Your task to perform on an android device: empty trash in google photos Image 0: 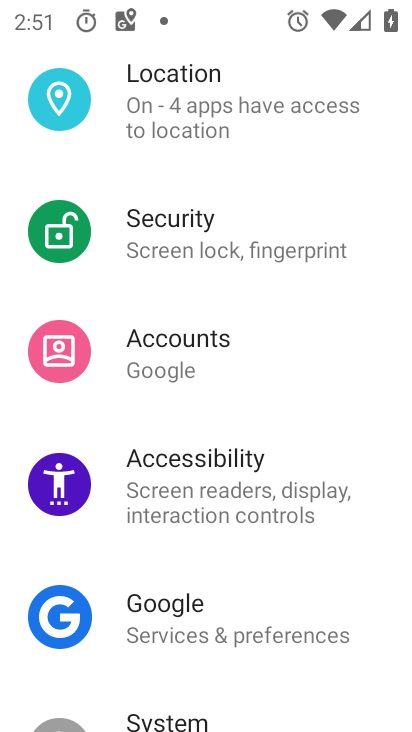
Step 0: press home button
Your task to perform on an android device: empty trash in google photos Image 1: 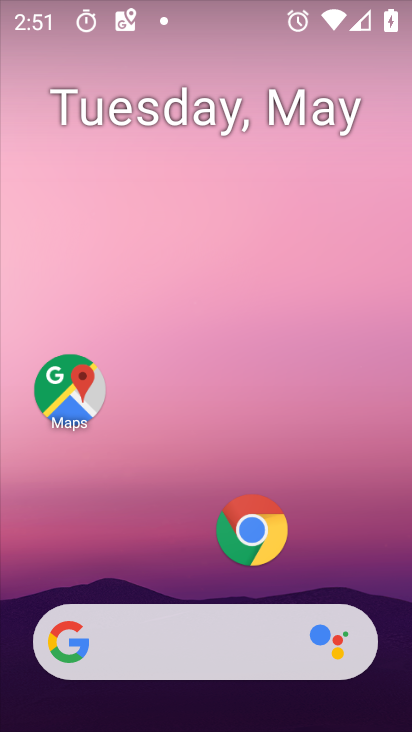
Step 1: drag from (171, 581) to (203, 32)
Your task to perform on an android device: empty trash in google photos Image 2: 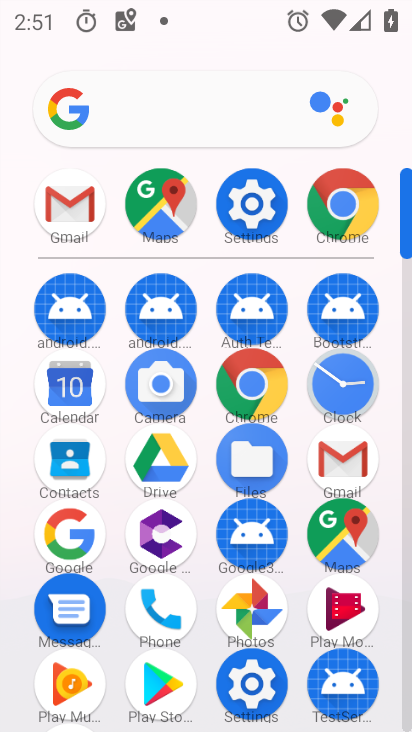
Step 2: click (273, 611)
Your task to perform on an android device: empty trash in google photos Image 3: 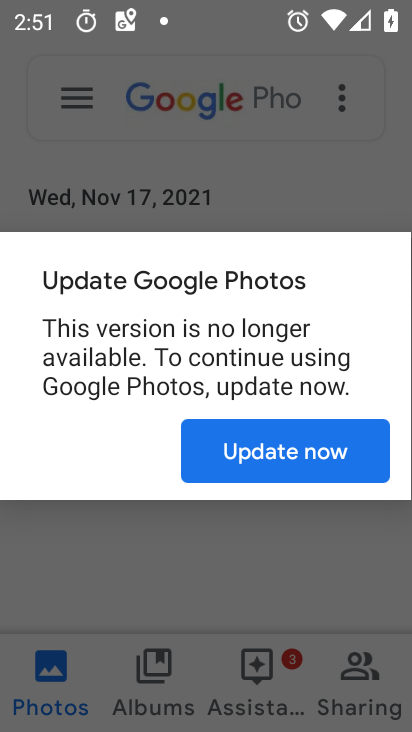
Step 3: click (256, 455)
Your task to perform on an android device: empty trash in google photos Image 4: 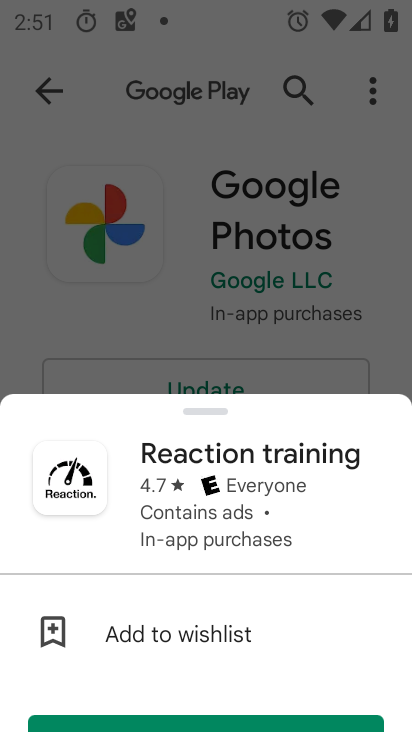
Step 4: press back button
Your task to perform on an android device: empty trash in google photos Image 5: 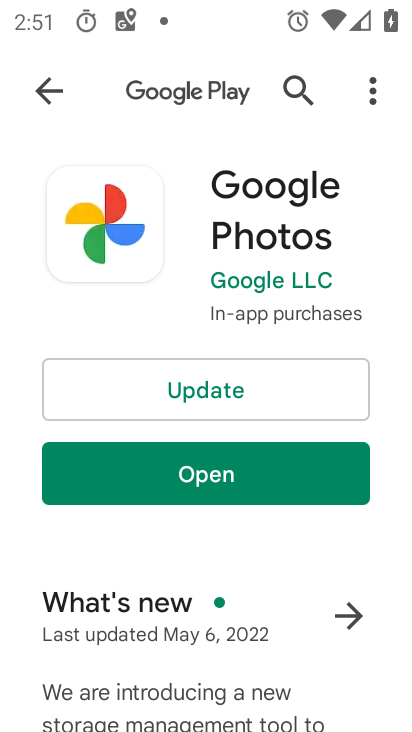
Step 5: click (250, 469)
Your task to perform on an android device: empty trash in google photos Image 6: 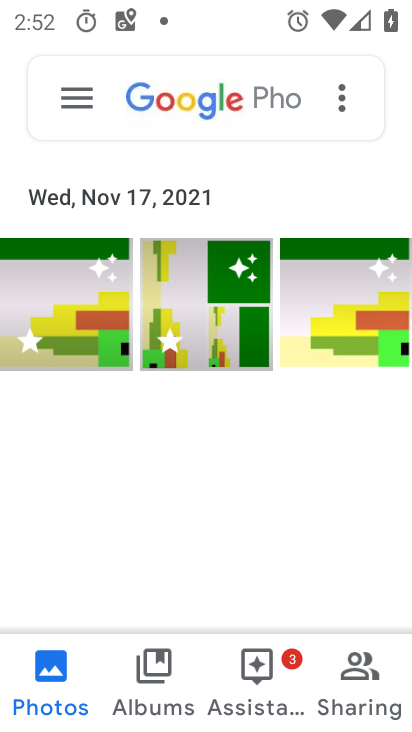
Step 6: click (52, 85)
Your task to perform on an android device: empty trash in google photos Image 7: 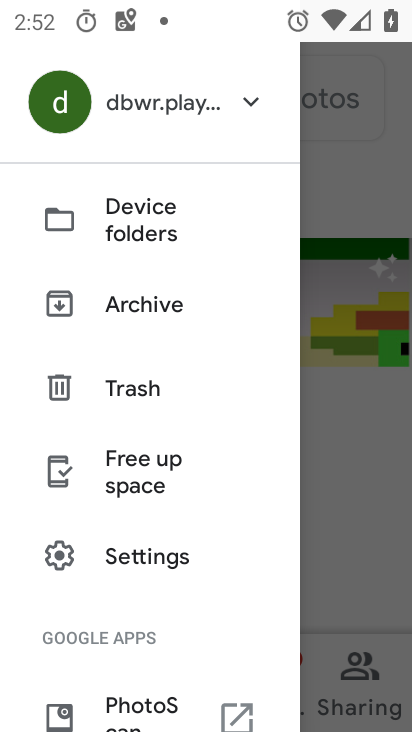
Step 7: click (149, 386)
Your task to perform on an android device: empty trash in google photos Image 8: 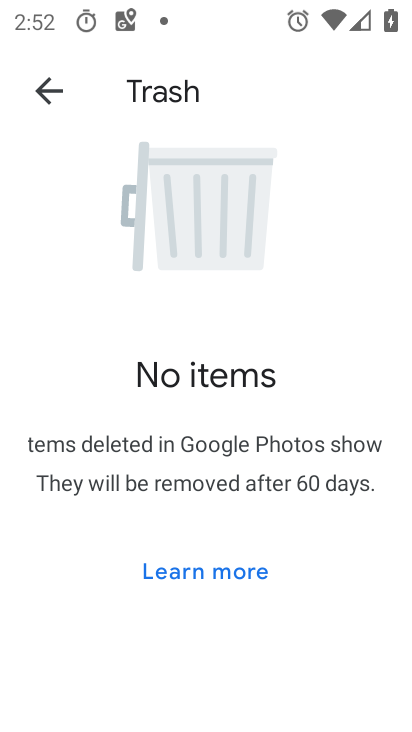
Step 8: task complete